Your task to perform on an android device: delete the emails in spam in the gmail app Image 0: 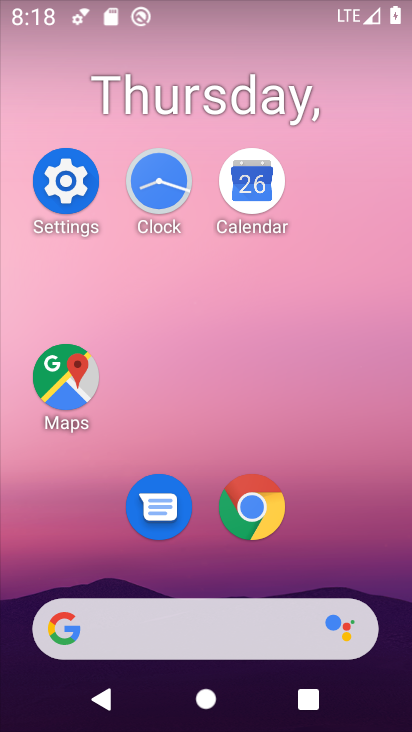
Step 0: drag from (331, 565) to (342, 8)
Your task to perform on an android device: delete the emails in spam in the gmail app Image 1: 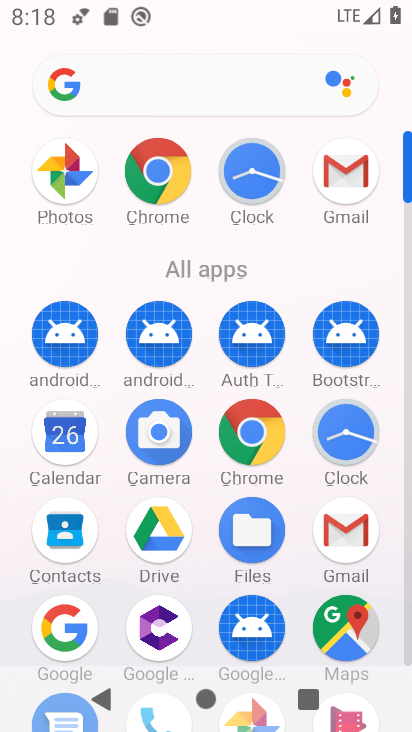
Step 1: drag from (334, 167) to (102, 281)
Your task to perform on an android device: delete the emails in spam in the gmail app Image 2: 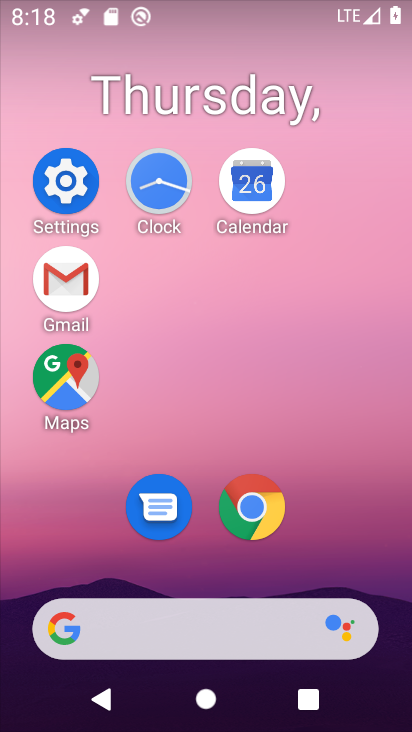
Step 2: click (94, 274)
Your task to perform on an android device: delete the emails in spam in the gmail app Image 3: 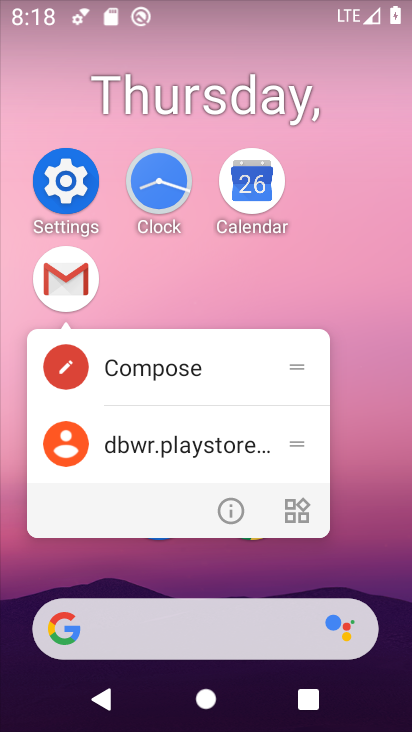
Step 3: click (94, 274)
Your task to perform on an android device: delete the emails in spam in the gmail app Image 4: 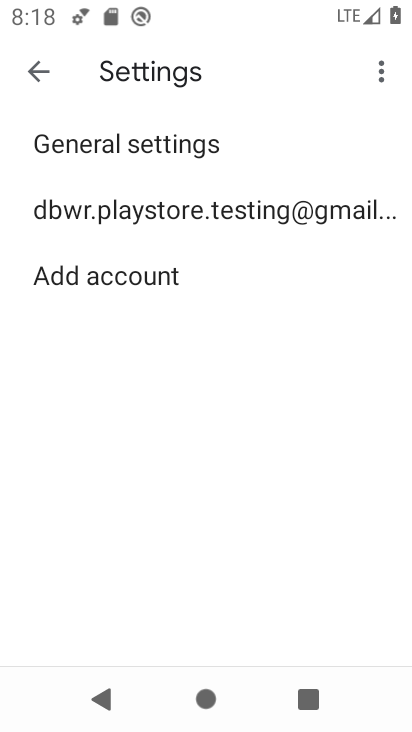
Step 4: click (27, 65)
Your task to perform on an android device: delete the emails in spam in the gmail app Image 5: 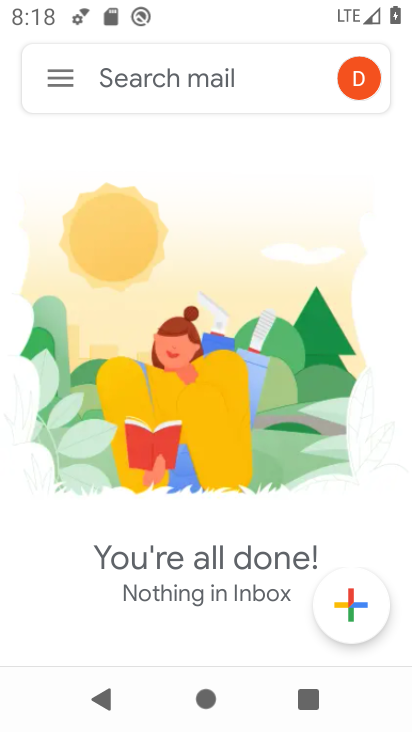
Step 5: click (58, 84)
Your task to perform on an android device: delete the emails in spam in the gmail app Image 6: 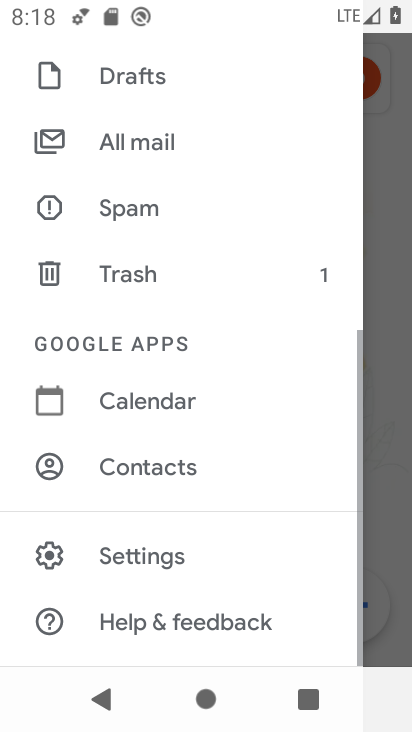
Step 6: drag from (158, 645) to (206, 234)
Your task to perform on an android device: delete the emails in spam in the gmail app Image 7: 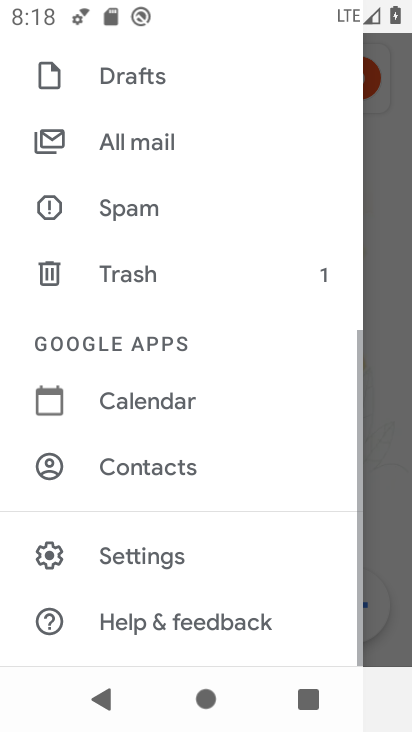
Step 7: click (164, 210)
Your task to perform on an android device: delete the emails in spam in the gmail app Image 8: 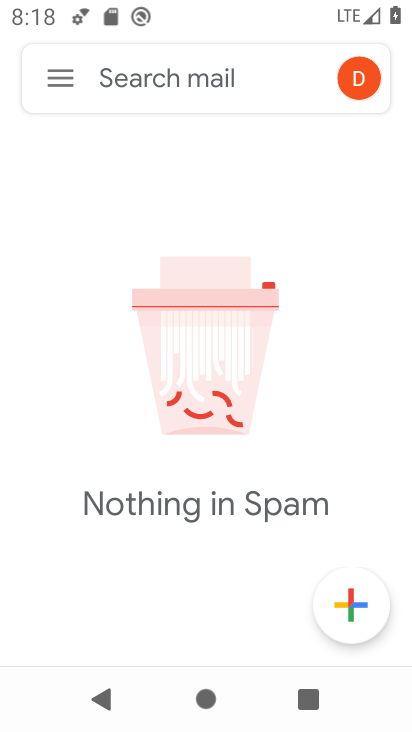
Step 8: task complete